Your task to perform on an android device: set the timer Image 0: 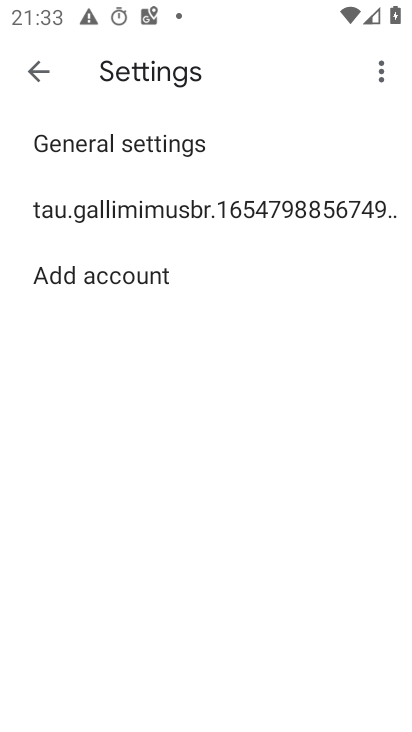
Step 0: press home button
Your task to perform on an android device: set the timer Image 1: 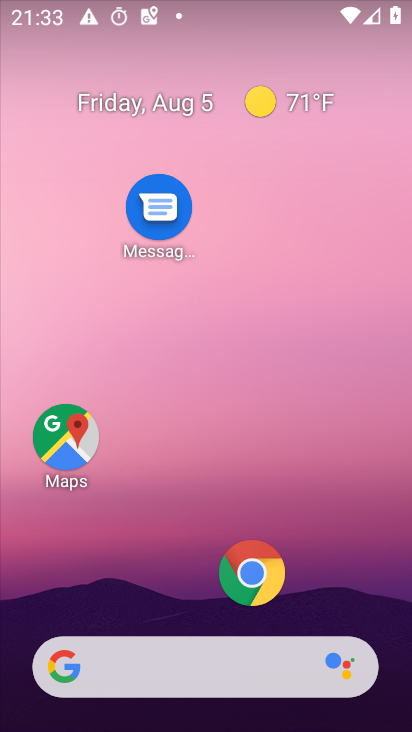
Step 1: drag from (188, 620) to (219, 58)
Your task to perform on an android device: set the timer Image 2: 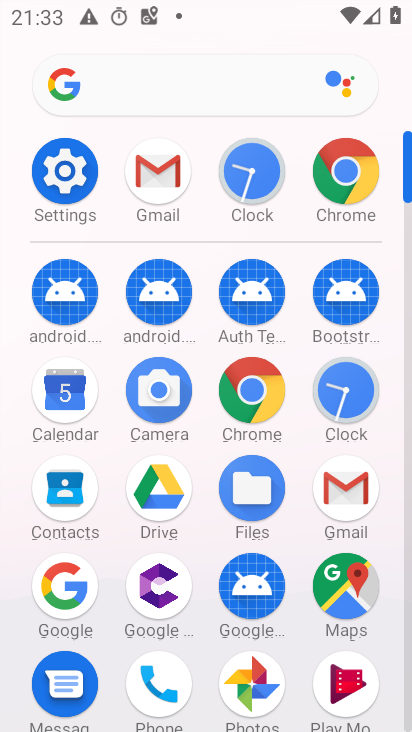
Step 2: click (248, 163)
Your task to perform on an android device: set the timer Image 3: 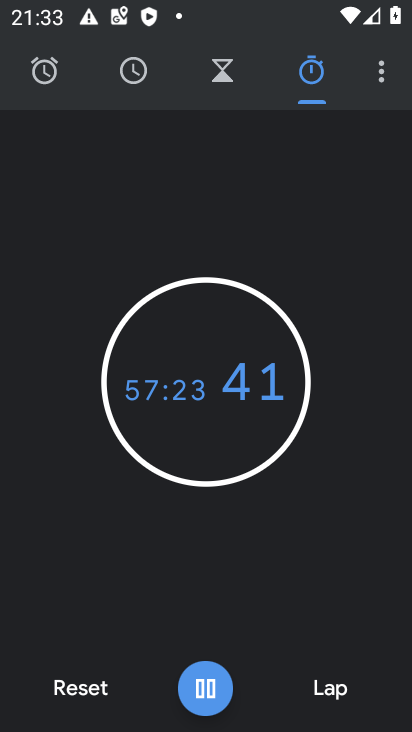
Step 3: click (78, 685)
Your task to perform on an android device: set the timer Image 4: 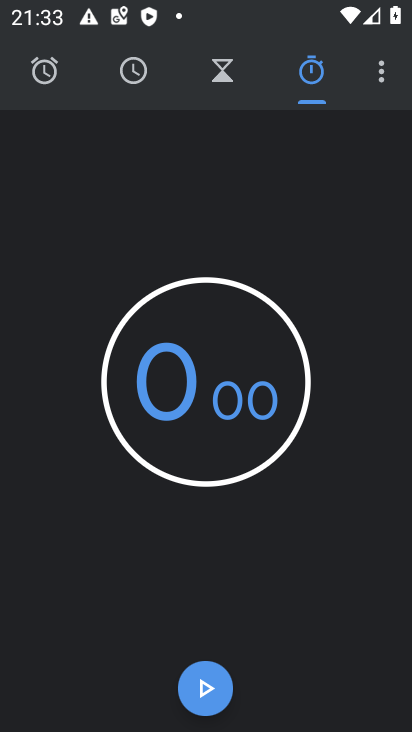
Step 4: click (228, 86)
Your task to perform on an android device: set the timer Image 5: 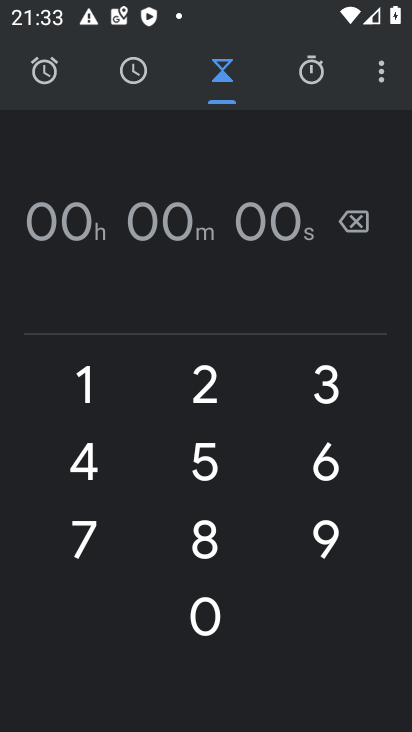
Step 5: click (321, 385)
Your task to perform on an android device: set the timer Image 6: 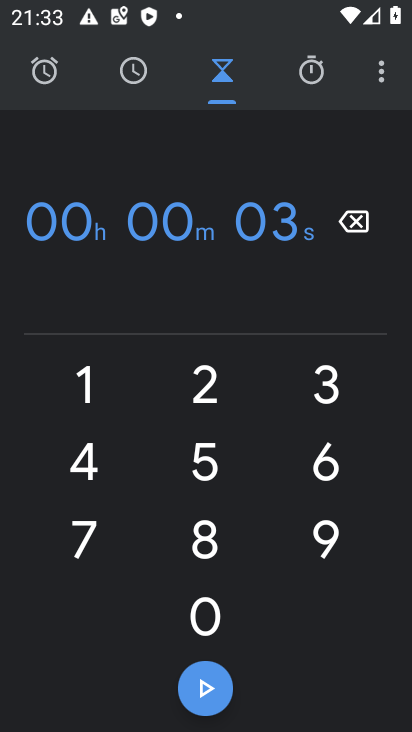
Step 6: click (193, 618)
Your task to perform on an android device: set the timer Image 7: 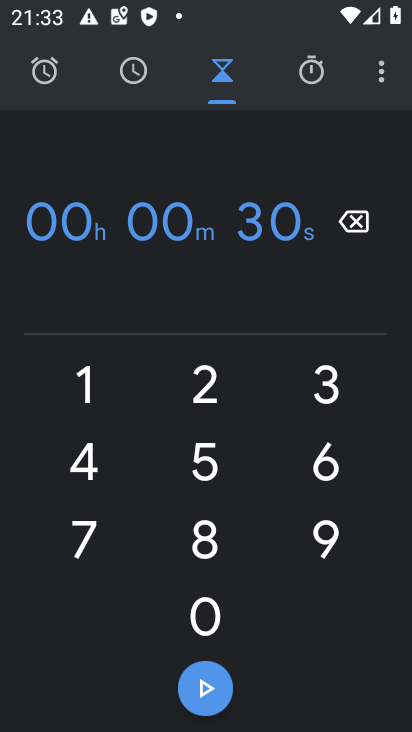
Step 7: click (193, 618)
Your task to perform on an android device: set the timer Image 8: 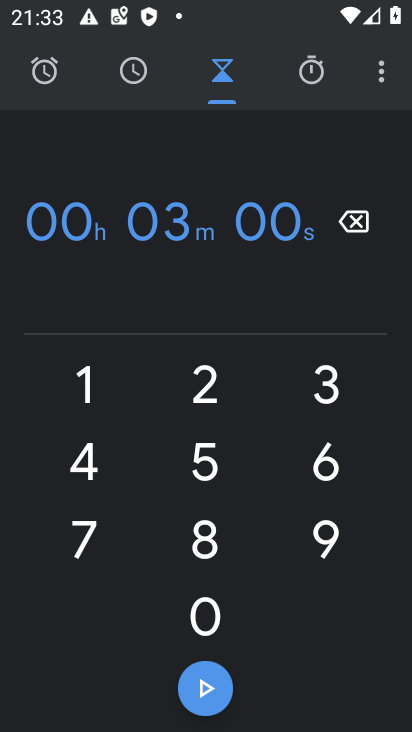
Step 8: click (193, 618)
Your task to perform on an android device: set the timer Image 9: 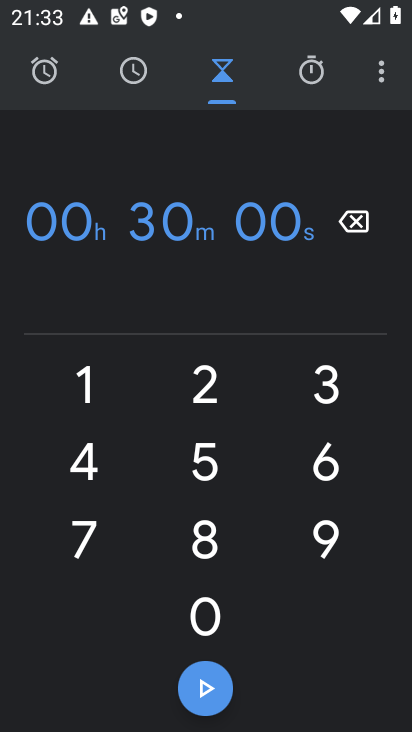
Step 9: click (207, 687)
Your task to perform on an android device: set the timer Image 10: 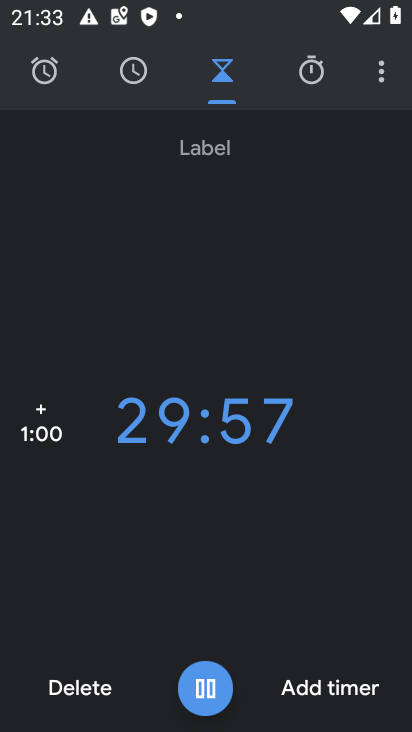
Step 10: task complete